Your task to perform on an android device: What's on my calendar tomorrow? Image 0: 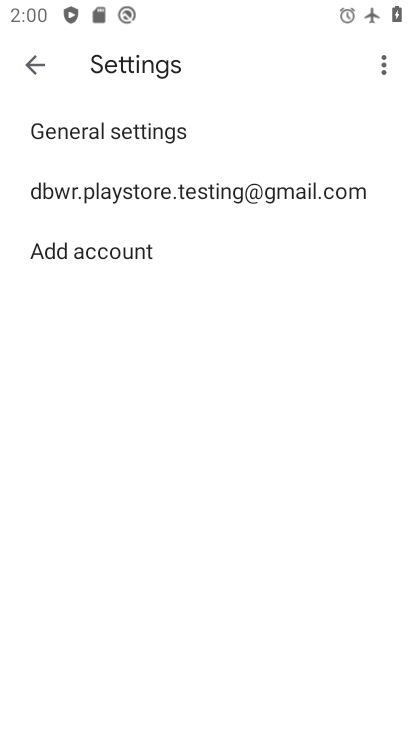
Step 0: press home button
Your task to perform on an android device: What's on my calendar tomorrow? Image 1: 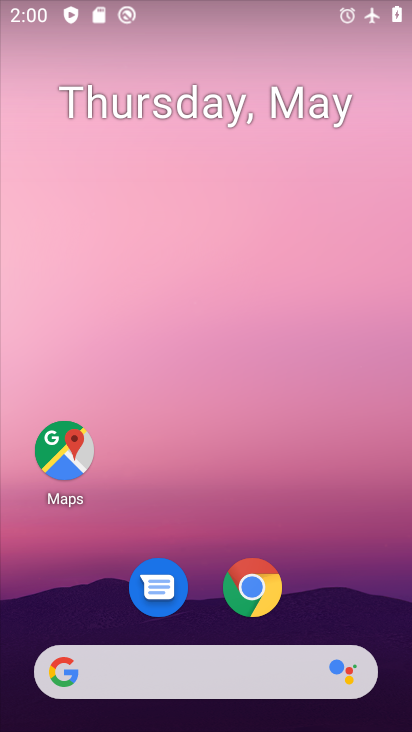
Step 1: drag from (332, 552) to (237, 140)
Your task to perform on an android device: What's on my calendar tomorrow? Image 2: 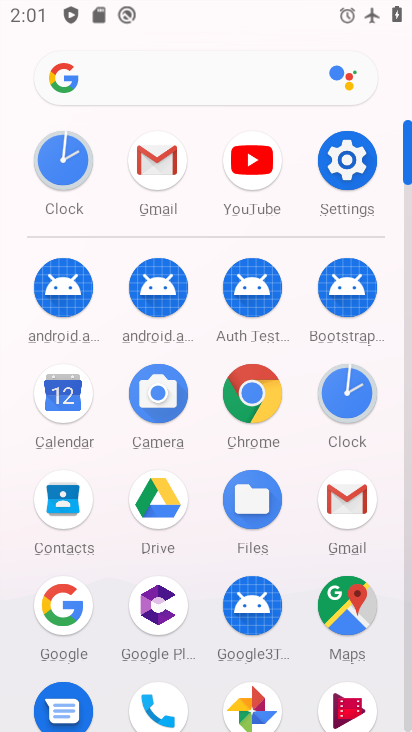
Step 2: drag from (200, 570) to (174, 221)
Your task to perform on an android device: What's on my calendar tomorrow? Image 3: 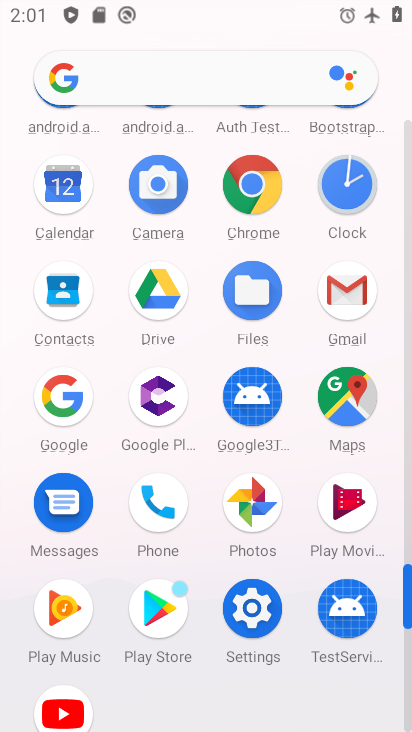
Step 3: click (60, 183)
Your task to perform on an android device: What's on my calendar tomorrow? Image 4: 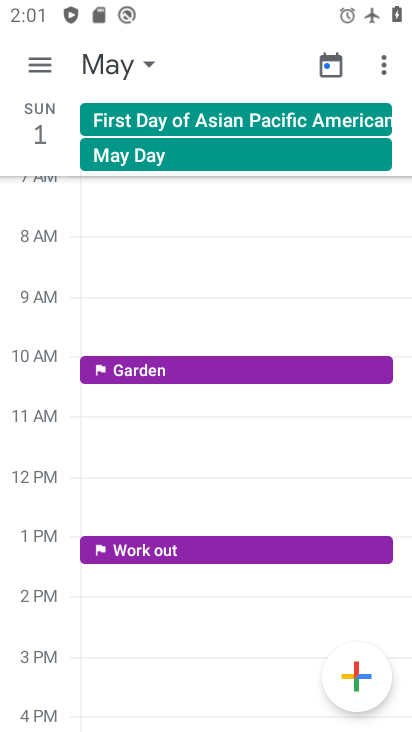
Step 4: click (141, 72)
Your task to perform on an android device: What's on my calendar tomorrow? Image 5: 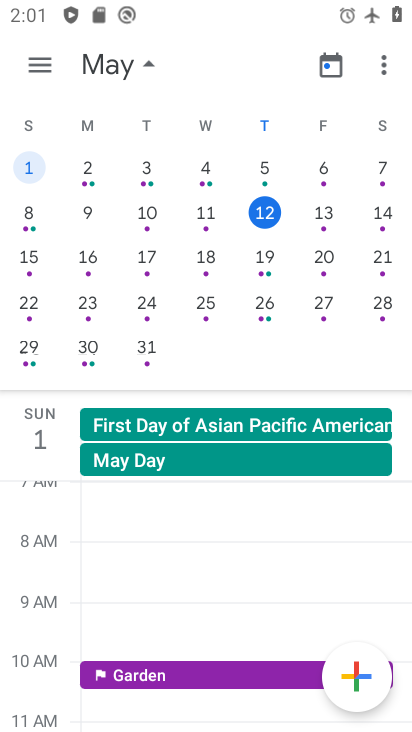
Step 5: click (315, 209)
Your task to perform on an android device: What's on my calendar tomorrow? Image 6: 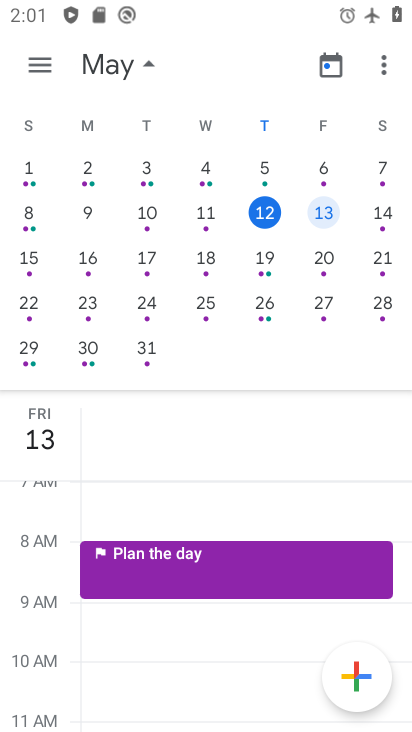
Step 6: task complete